Your task to perform on an android device: turn pop-ups on in chrome Image 0: 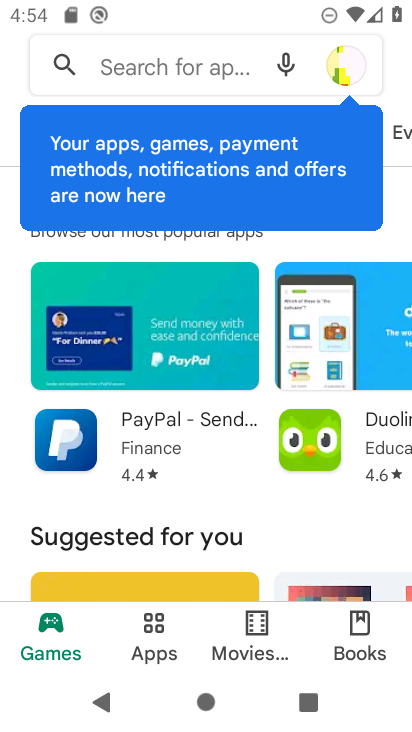
Step 0: press home button
Your task to perform on an android device: turn pop-ups on in chrome Image 1: 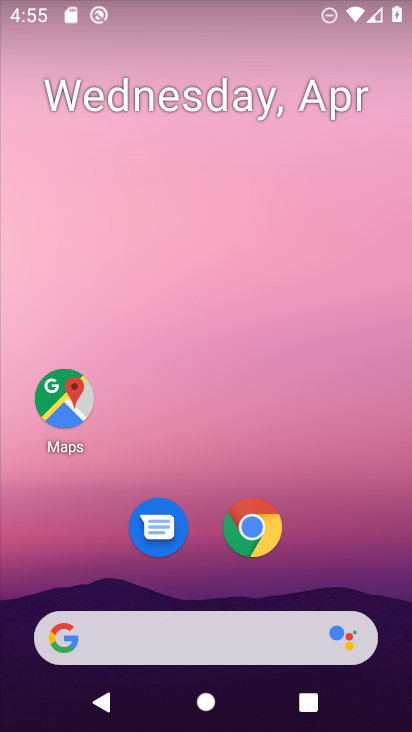
Step 1: click (250, 529)
Your task to perform on an android device: turn pop-ups on in chrome Image 2: 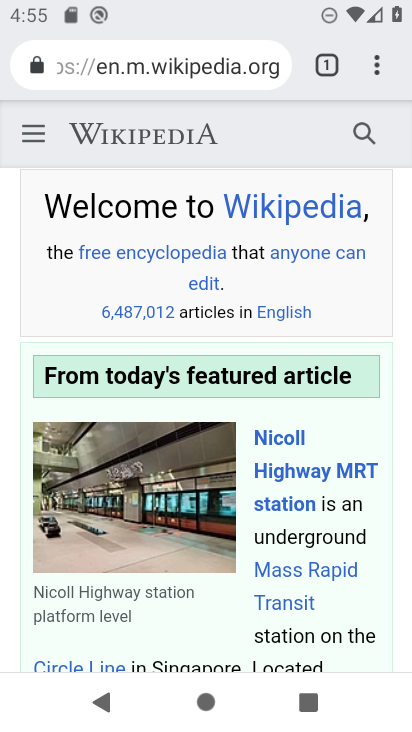
Step 2: click (375, 65)
Your task to perform on an android device: turn pop-ups on in chrome Image 3: 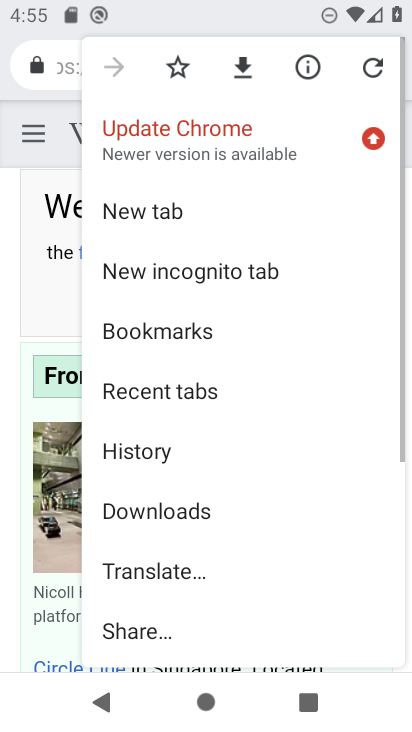
Step 3: drag from (207, 562) to (235, 99)
Your task to perform on an android device: turn pop-ups on in chrome Image 4: 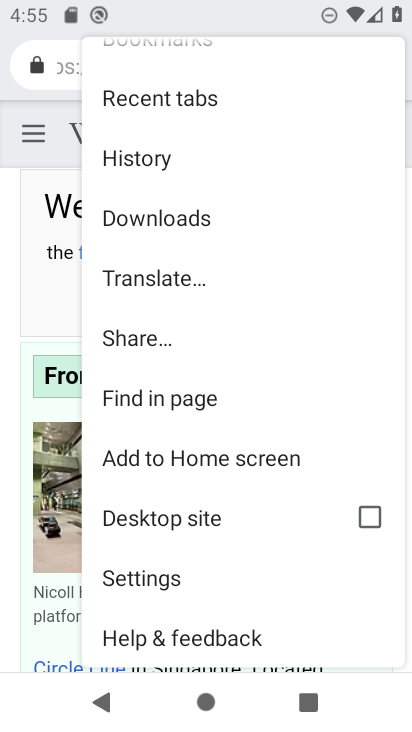
Step 4: click (131, 574)
Your task to perform on an android device: turn pop-ups on in chrome Image 5: 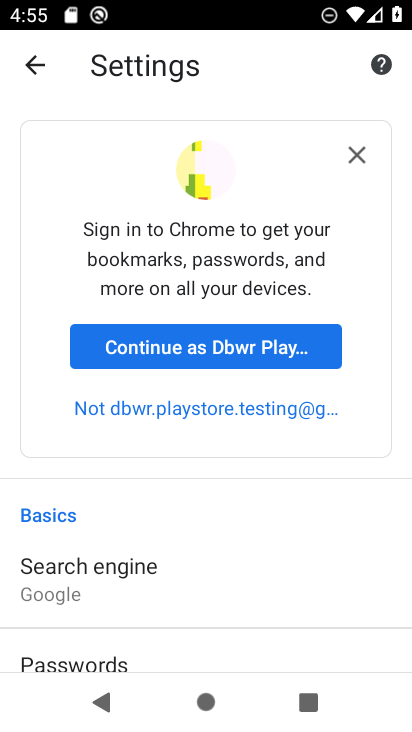
Step 5: drag from (213, 611) to (215, 180)
Your task to perform on an android device: turn pop-ups on in chrome Image 6: 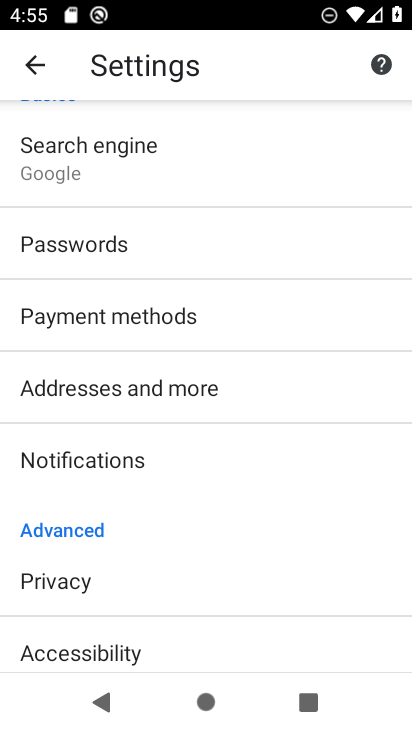
Step 6: drag from (196, 539) to (204, 190)
Your task to perform on an android device: turn pop-ups on in chrome Image 7: 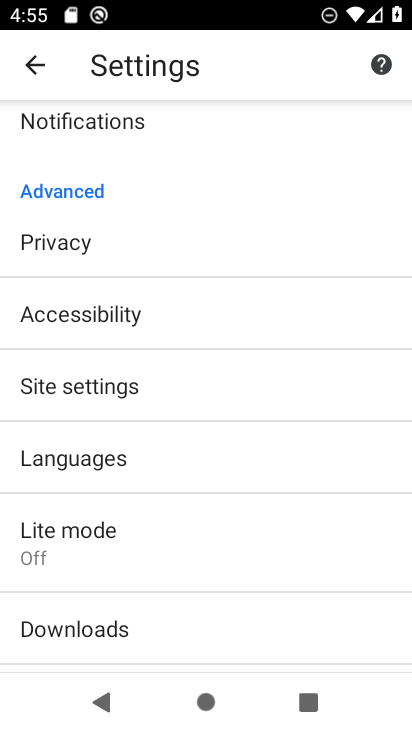
Step 7: click (102, 387)
Your task to perform on an android device: turn pop-ups on in chrome Image 8: 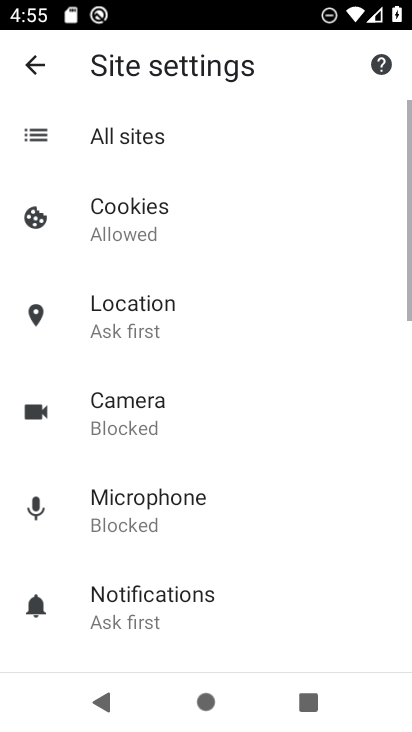
Step 8: drag from (260, 566) to (252, 123)
Your task to perform on an android device: turn pop-ups on in chrome Image 9: 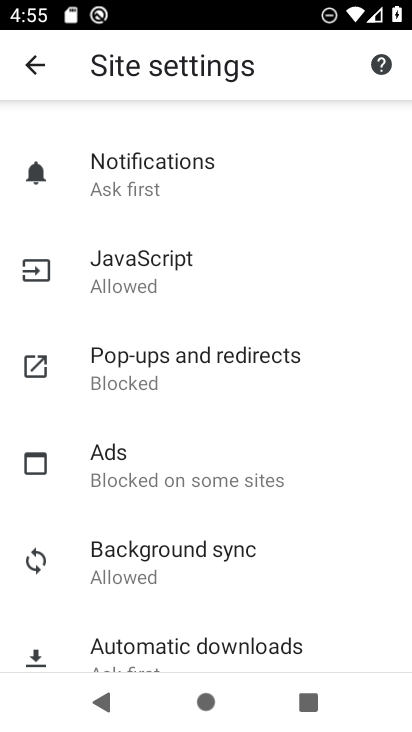
Step 9: click (153, 364)
Your task to perform on an android device: turn pop-ups on in chrome Image 10: 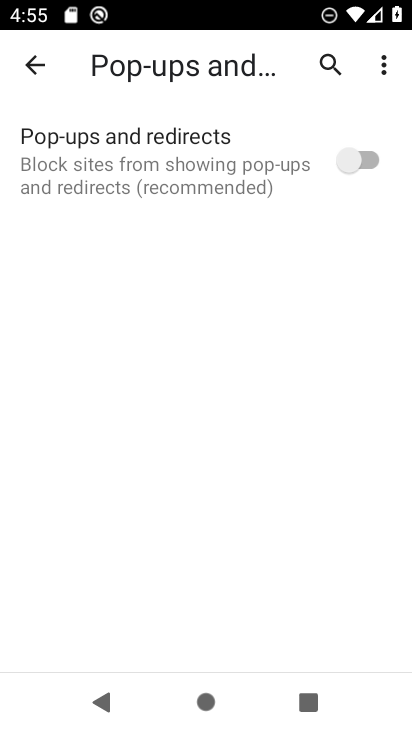
Step 10: click (341, 156)
Your task to perform on an android device: turn pop-ups on in chrome Image 11: 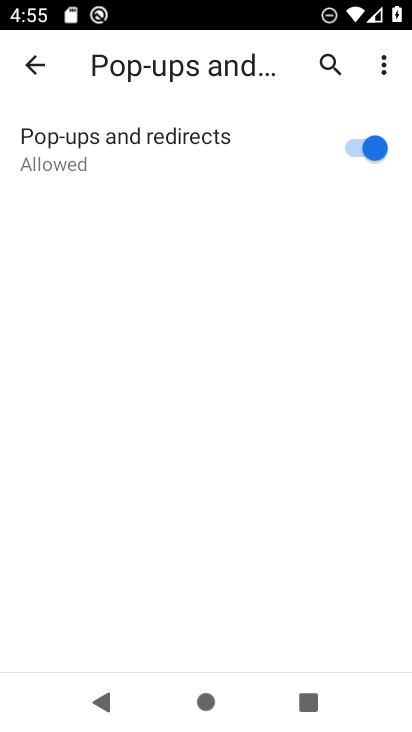
Step 11: task complete